Your task to perform on an android device: Open maps Image 0: 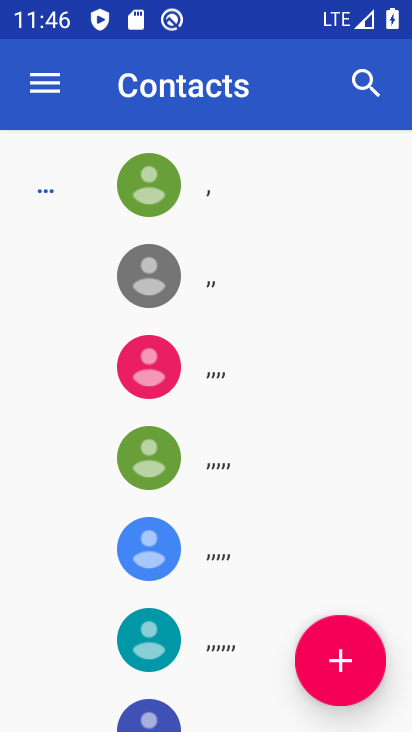
Step 0: press home button
Your task to perform on an android device: Open maps Image 1: 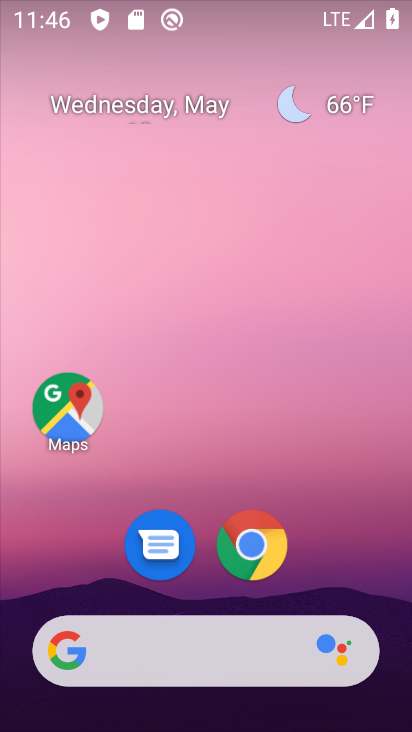
Step 1: click (54, 396)
Your task to perform on an android device: Open maps Image 2: 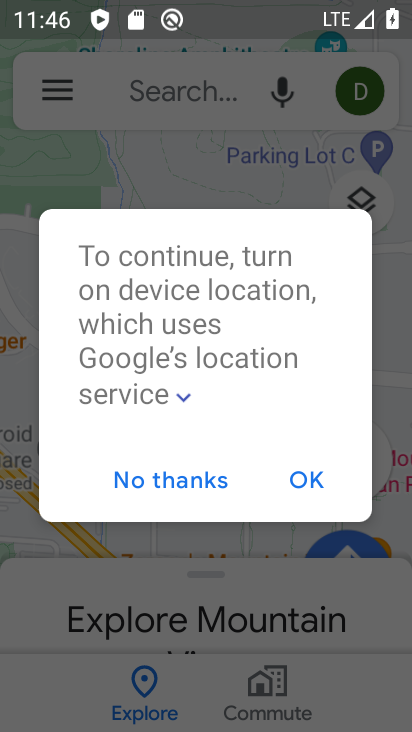
Step 2: click (299, 474)
Your task to perform on an android device: Open maps Image 3: 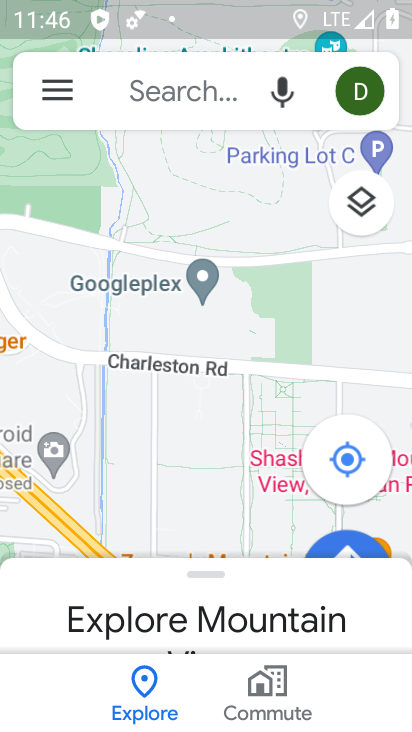
Step 3: task complete